Your task to perform on an android device: toggle notification dots Image 0: 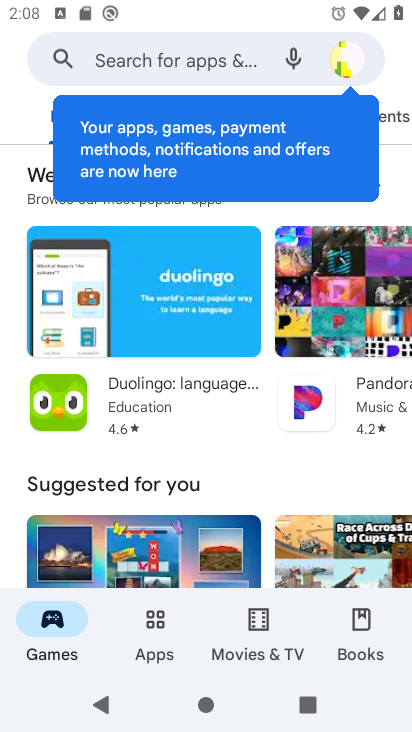
Step 0: press home button
Your task to perform on an android device: toggle notification dots Image 1: 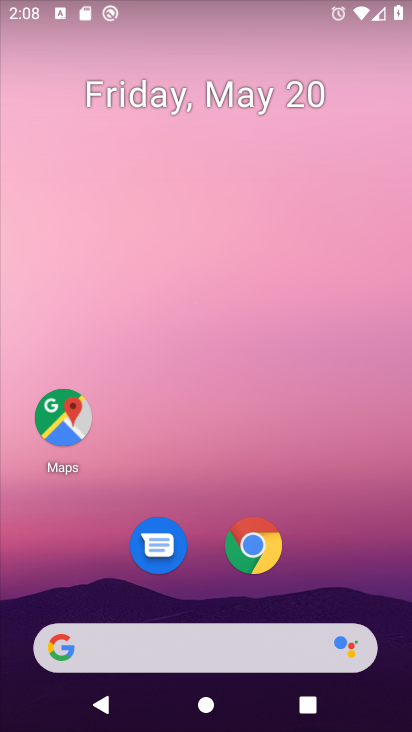
Step 1: drag from (258, 572) to (179, 45)
Your task to perform on an android device: toggle notification dots Image 2: 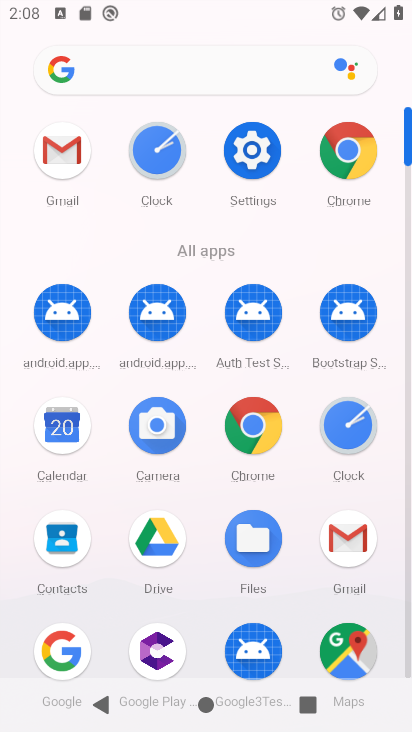
Step 2: click (234, 136)
Your task to perform on an android device: toggle notification dots Image 3: 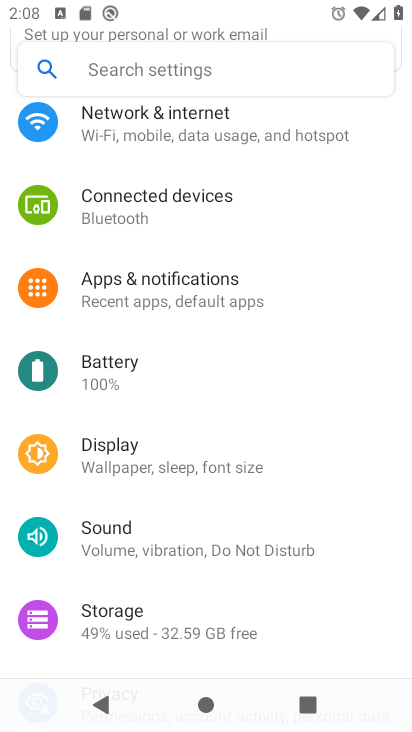
Step 3: click (195, 288)
Your task to perform on an android device: toggle notification dots Image 4: 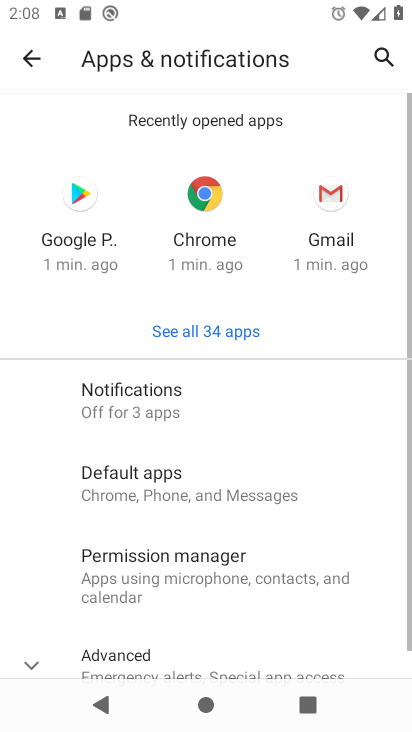
Step 4: drag from (296, 590) to (308, 267)
Your task to perform on an android device: toggle notification dots Image 5: 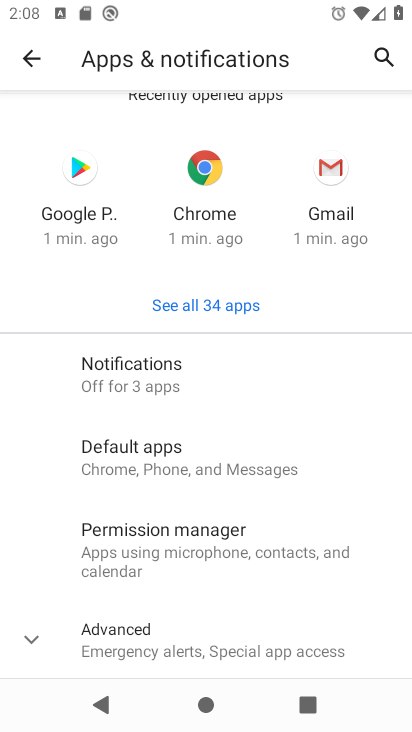
Step 5: click (177, 383)
Your task to perform on an android device: toggle notification dots Image 6: 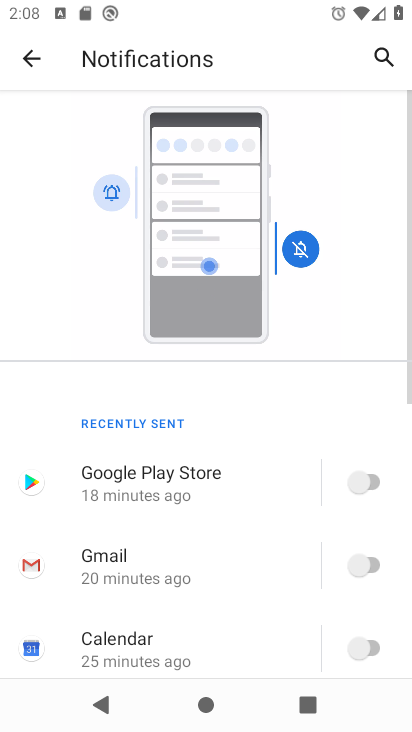
Step 6: drag from (293, 641) to (338, 113)
Your task to perform on an android device: toggle notification dots Image 7: 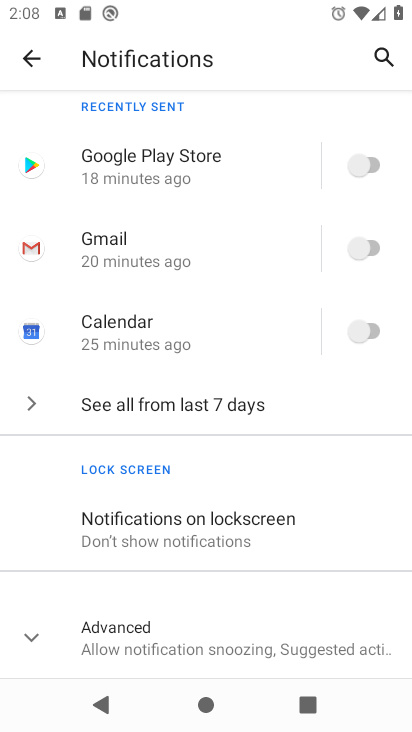
Step 7: click (169, 631)
Your task to perform on an android device: toggle notification dots Image 8: 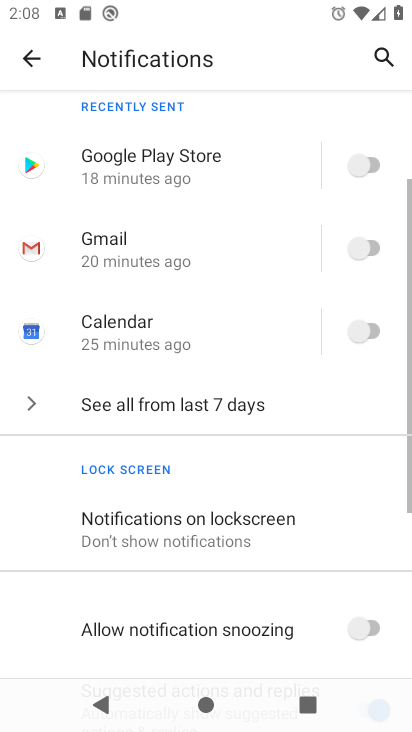
Step 8: drag from (210, 623) to (280, 215)
Your task to perform on an android device: toggle notification dots Image 9: 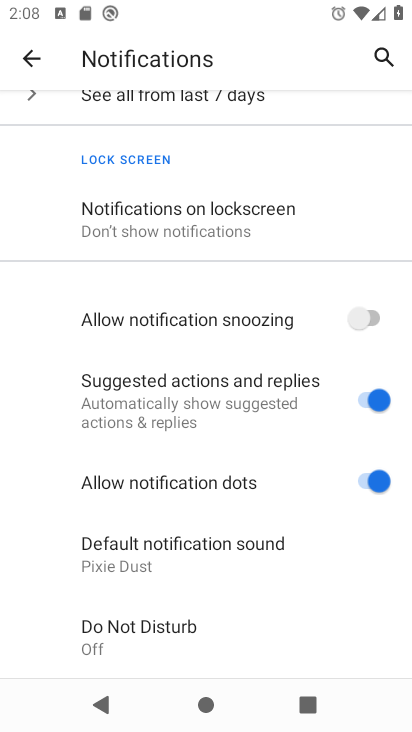
Step 9: click (370, 482)
Your task to perform on an android device: toggle notification dots Image 10: 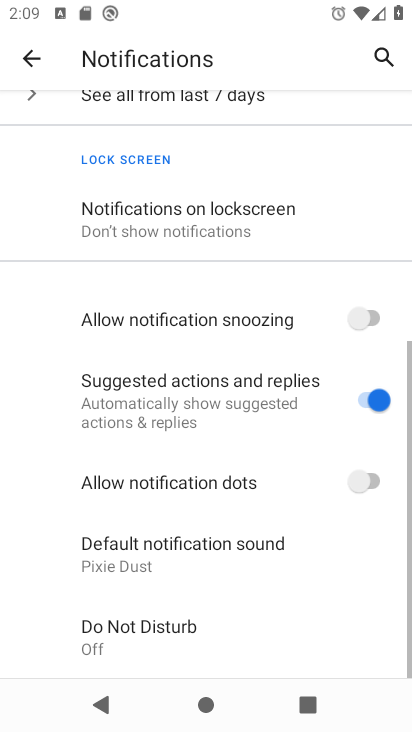
Step 10: task complete